Your task to perform on an android device: find snoozed emails in the gmail app Image 0: 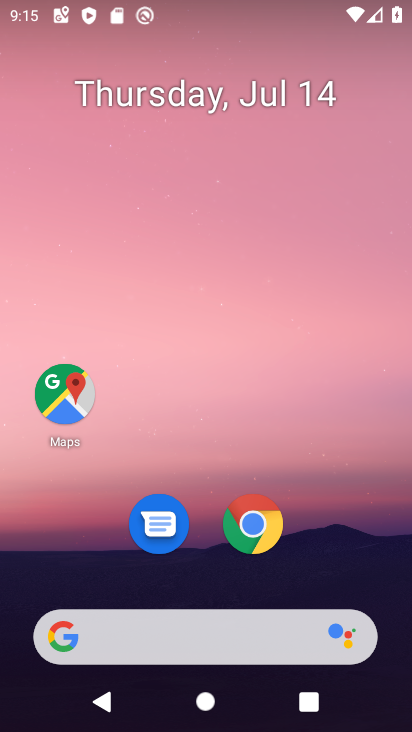
Step 0: drag from (329, 500) to (323, 73)
Your task to perform on an android device: find snoozed emails in the gmail app Image 1: 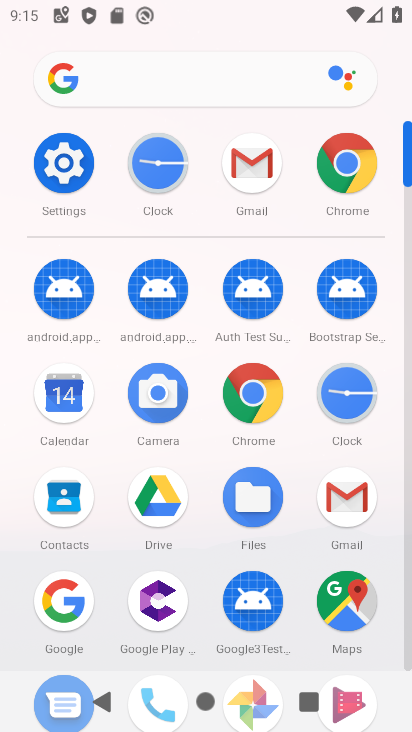
Step 1: click (263, 166)
Your task to perform on an android device: find snoozed emails in the gmail app Image 2: 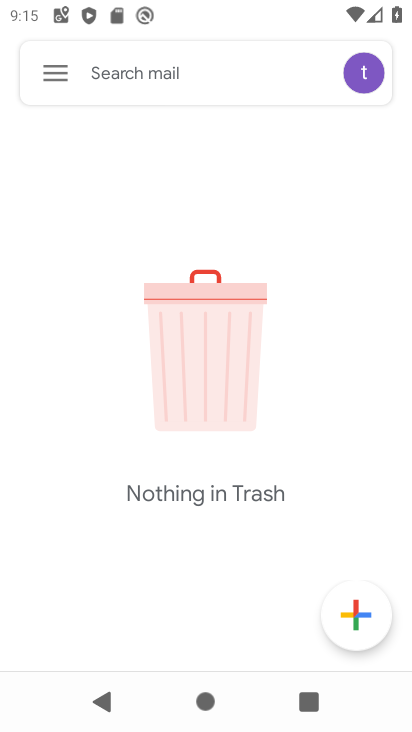
Step 2: click (49, 66)
Your task to perform on an android device: find snoozed emails in the gmail app Image 3: 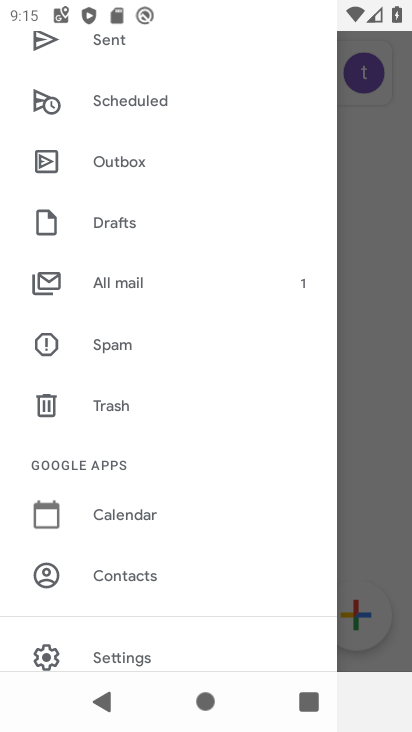
Step 3: drag from (160, 189) to (177, 593)
Your task to perform on an android device: find snoozed emails in the gmail app Image 4: 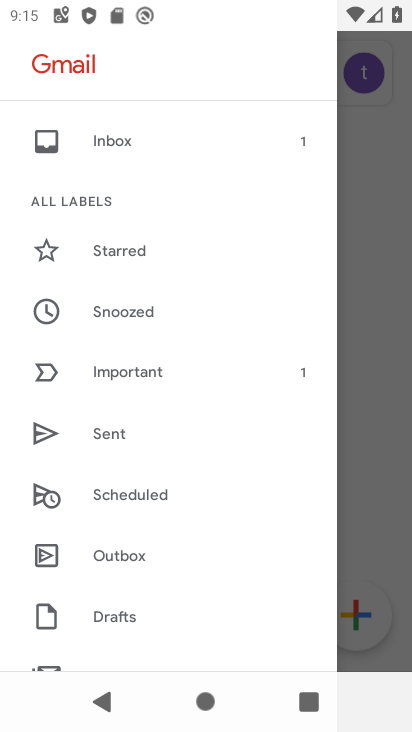
Step 4: click (131, 303)
Your task to perform on an android device: find snoozed emails in the gmail app Image 5: 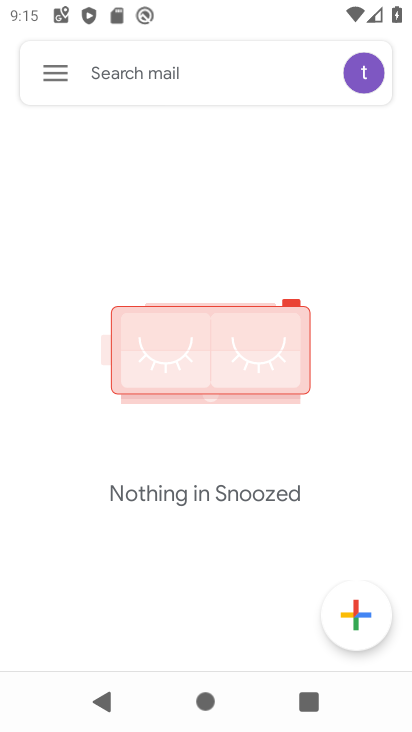
Step 5: task complete